Your task to perform on an android device: add a contact in the contacts app Image 0: 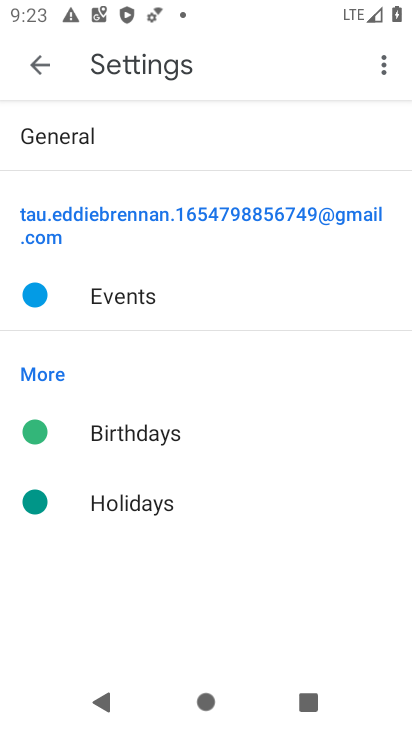
Step 0: press home button
Your task to perform on an android device: add a contact in the contacts app Image 1: 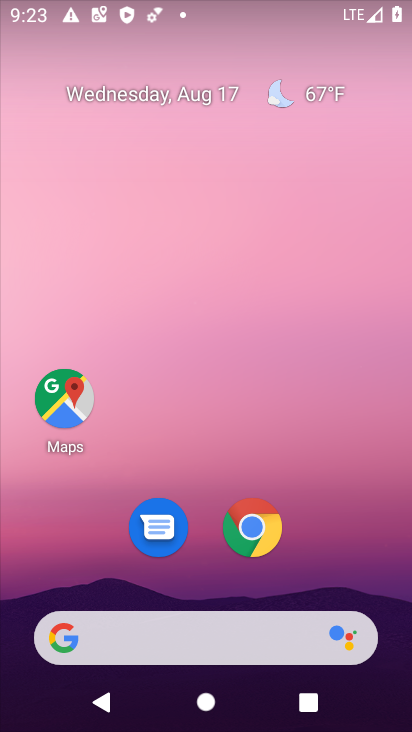
Step 1: drag from (222, 579) to (249, 134)
Your task to perform on an android device: add a contact in the contacts app Image 2: 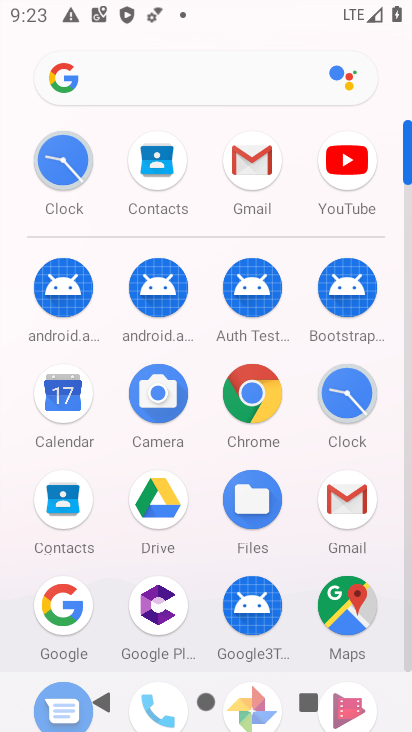
Step 2: click (67, 525)
Your task to perform on an android device: add a contact in the contacts app Image 3: 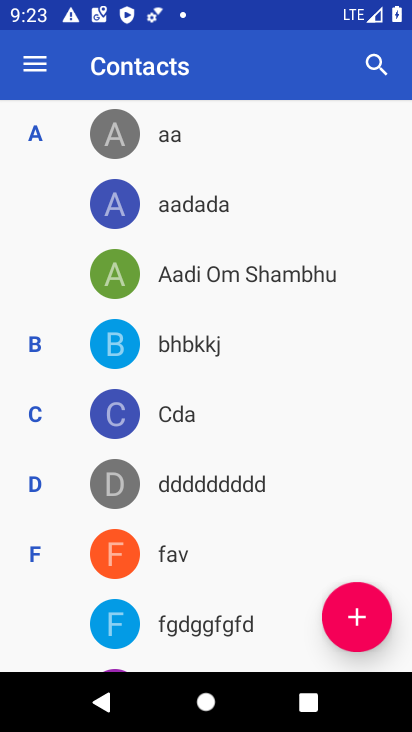
Step 3: click (363, 615)
Your task to perform on an android device: add a contact in the contacts app Image 4: 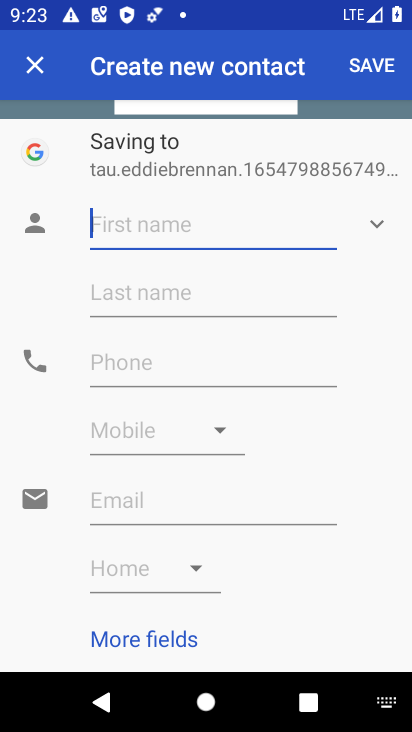
Step 4: type "pop"
Your task to perform on an android device: add a contact in the contacts app Image 5: 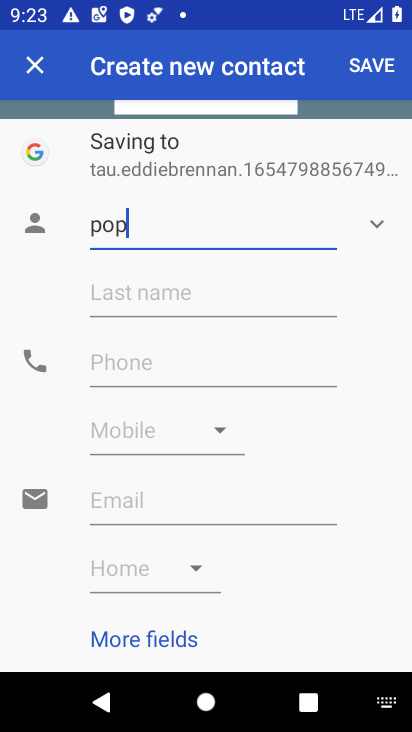
Step 5: click (135, 368)
Your task to perform on an android device: add a contact in the contacts app Image 6: 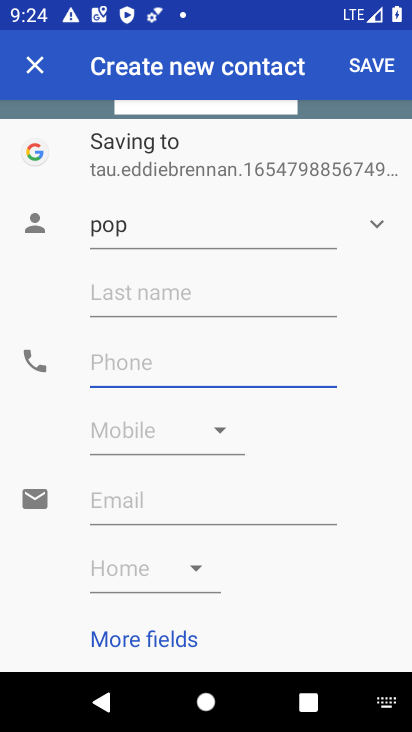
Step 6: type "23456787654"
Your task to perform on an android device: add a contact in the contacts app Image 7: 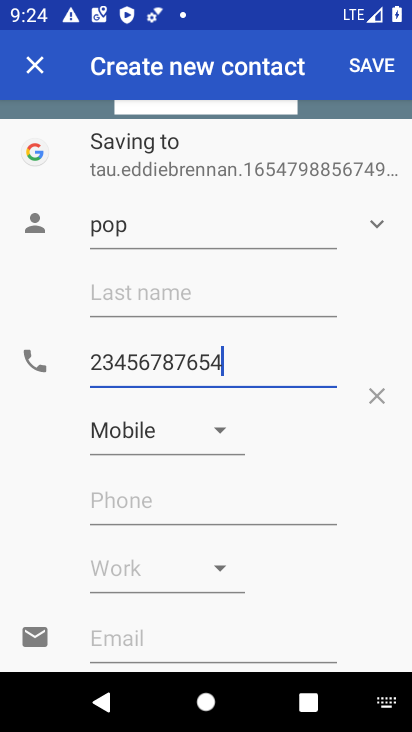
Step 7: click (369, 71)
Your task to perform on an android device: add a contact in the contacts app Image 8: 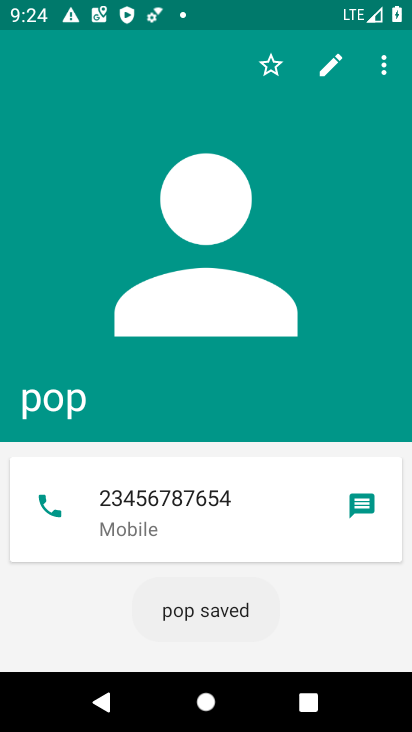
Step 8: task complete